Your task to perform on an android device: Go to wifi settings Image 0: 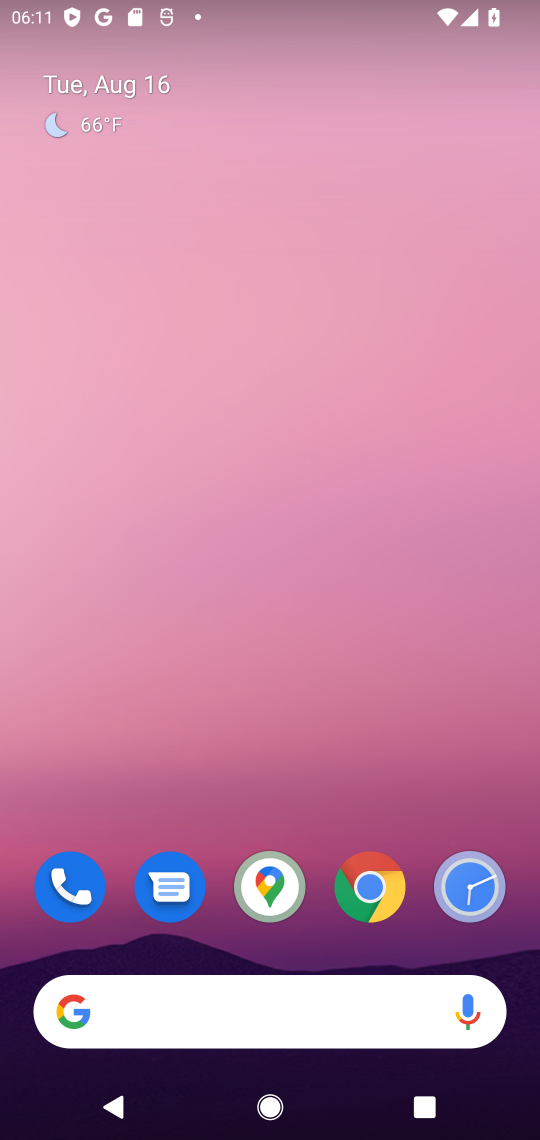
Step 0: drag from (251, 741) to (370, 54)
Your task to perform on an android device: Go to wifi settings Image 1: 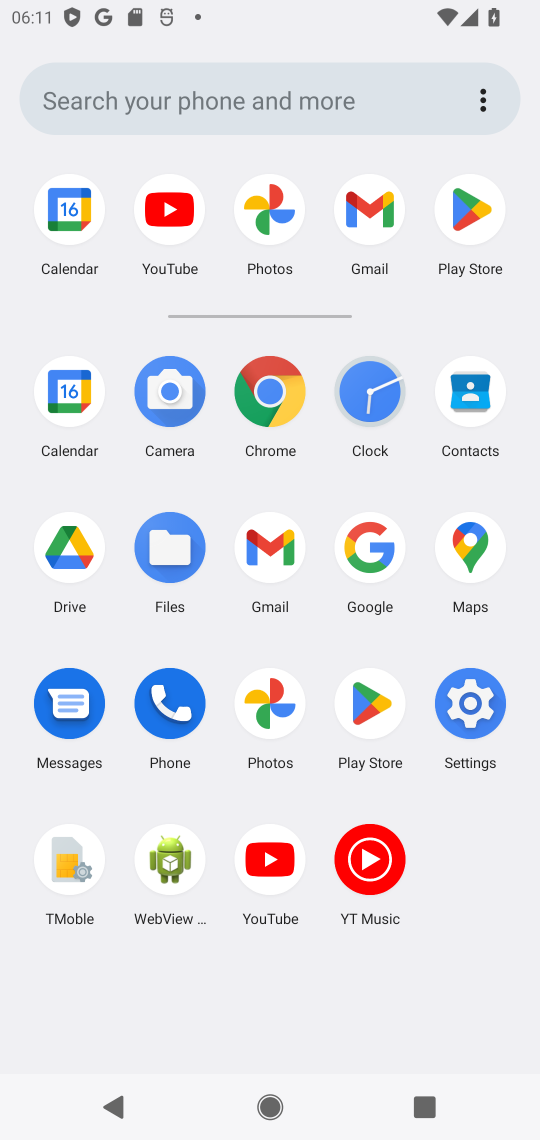
Step 1: click (469, 701)
Your task to perform on an android device: Go to wifi settings Image 2: 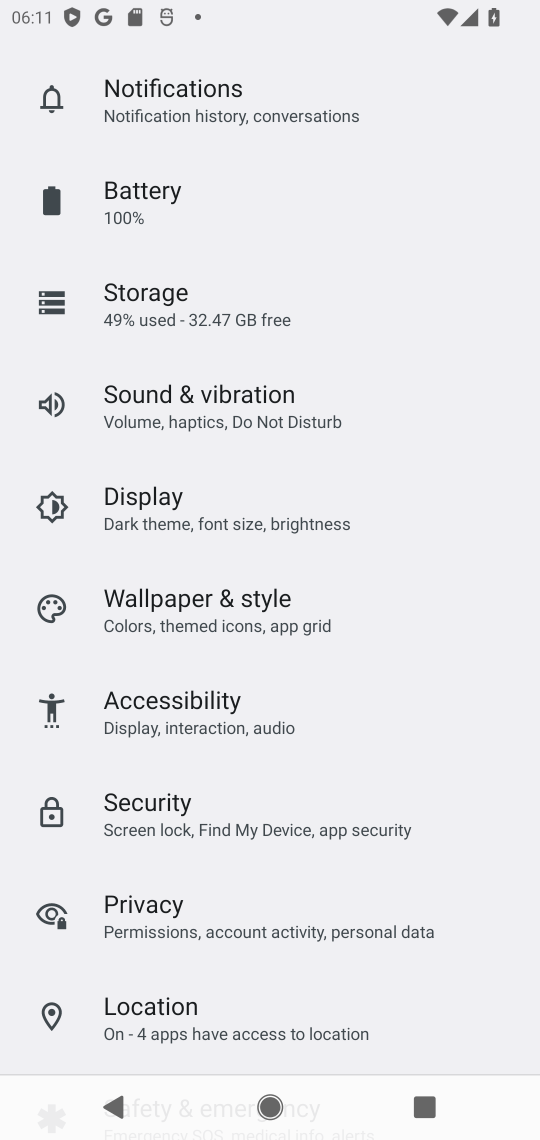
Step 2: drag from (482, 188) to (338, 804)
Your task to perform on an android device: Go to wifi settings Image 3: 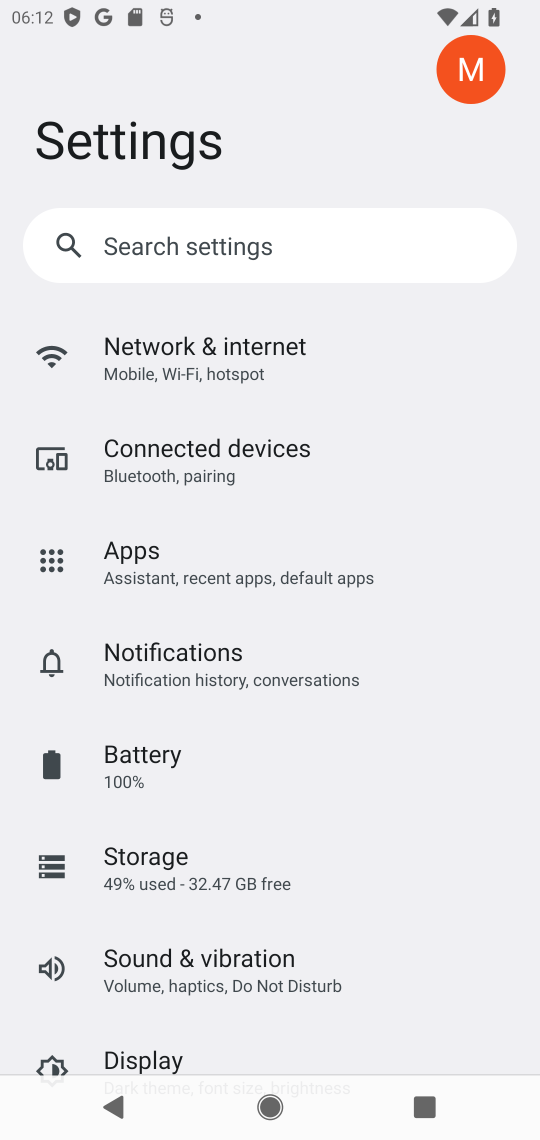
Step 3: click (224, 366)
Your task to perform on an android device: Go to wifi settings Image 4: 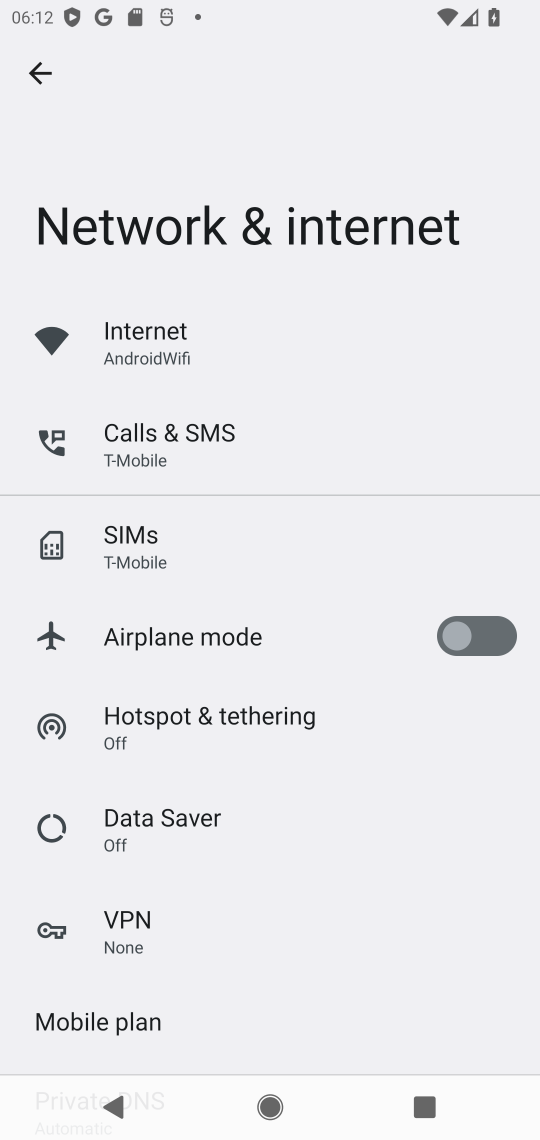
Step 4: click (168, 329)
Your task to perform on an android device: Go to wifi settings Image 5: 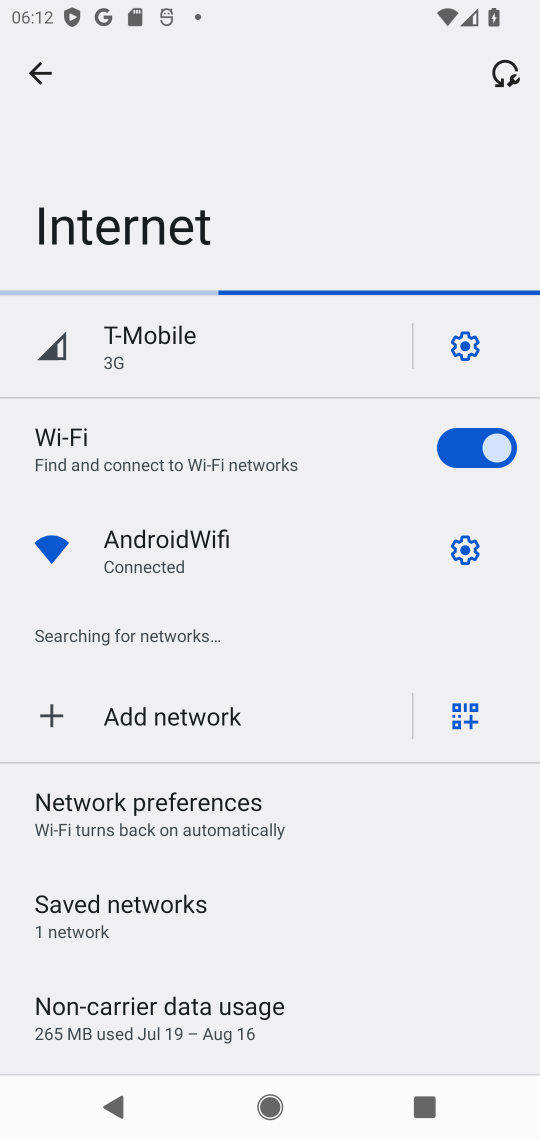
Step 5: click (465, 546)
Your task to perform on an android device: Go to wifi settings Image 6: 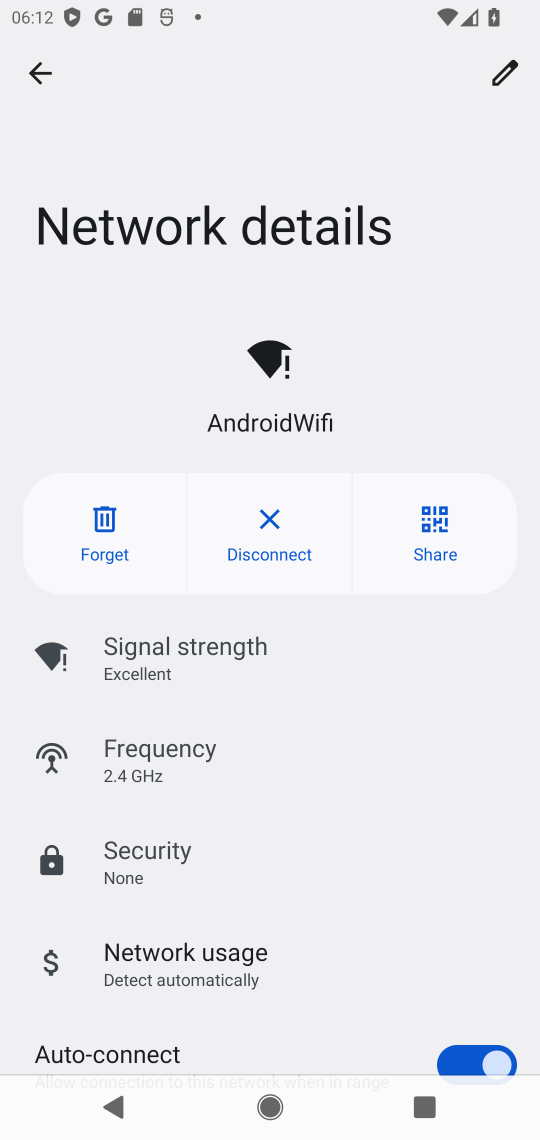
Step 6: task complete